Your task to perform on an android device: toggle data saver in the chrome app Image 0: 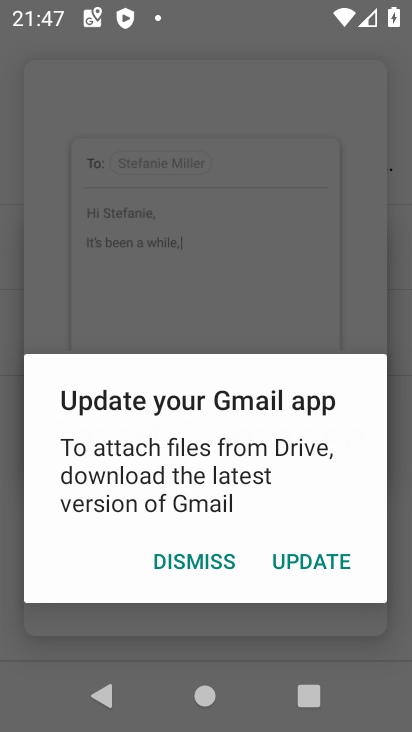
Step 0: drag from (228, 21) to (204, 605)
Your task to perform on an android device: toggle data saver in the chrome app Image 1: 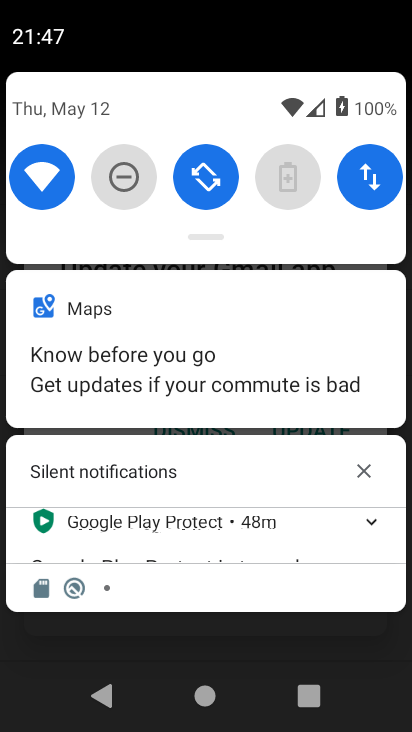
Step 1: click (49, 192)
Your task to perform on an android device: toggle data saver in the chrome app Image 2: 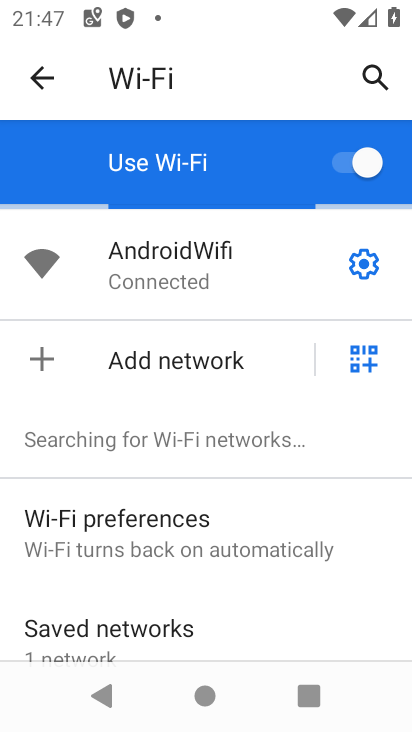
Step 2: task complete